Your task to perform on an android device: toggle notification dots Image 0: 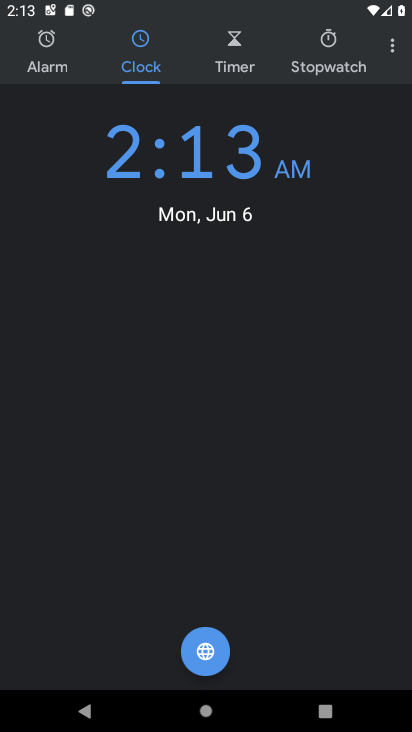
Step 0: press home button
Your task to perform on an android device: toggle notification dots Image 1: 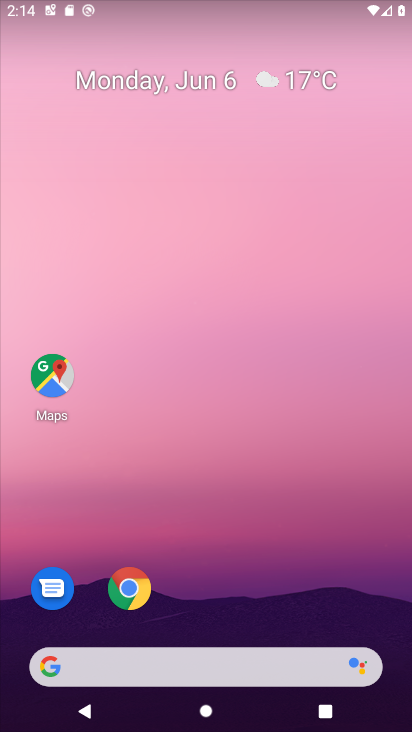
Step 1: drag from (228, 551) to (241, 108)
Your task to perform on an android device: toggle notification dots Image 2: 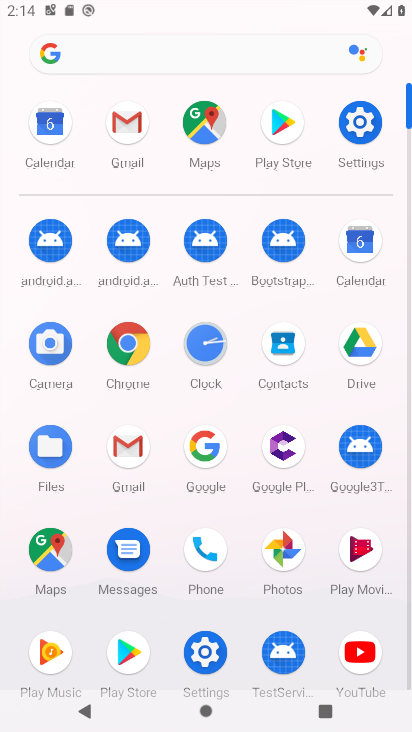
Step 2: click (365, 132)
Your task to perform on an android device: toggle notification dots Image 3: 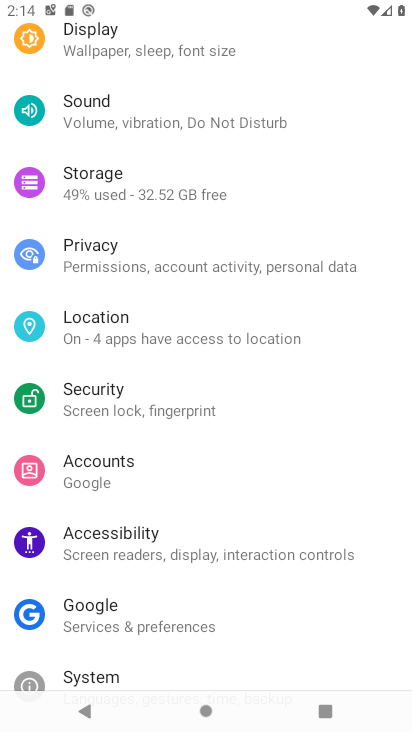
Step 3: drag from (279, 115) to (239, 637)
Your task to perform on an android device: toggle notification dots Image 4: 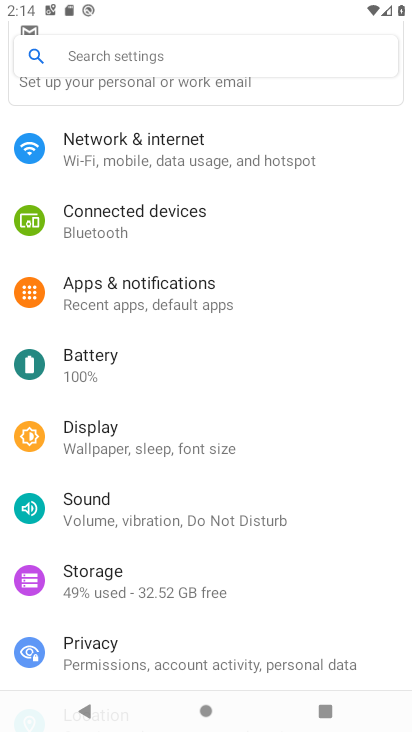
Step 4: click (243, 287)
Your task to perform on an android device: toggle notification dots Image 5: 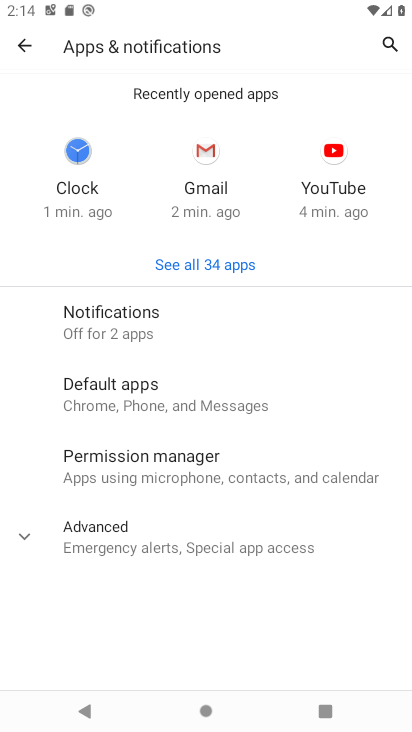
Step 5: click (236, 323)
Your task to perform on an android device: toggle notification dots Image 6: 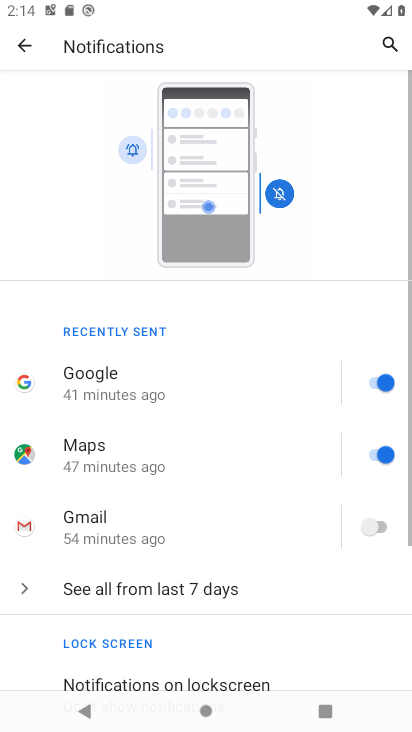
Step 6: drag from (260, 637) to (342, 130)
Your task to perform on an android device: toggle notification dots Image 7: 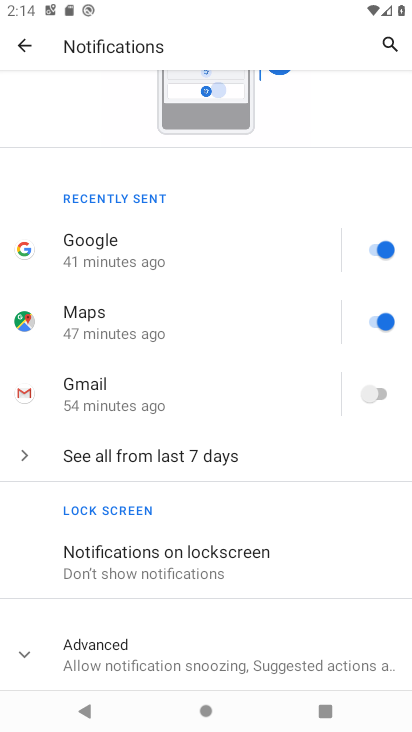
Step 7: click (238, 667)
Your task to perform on an android device: toggle notification dots Image 8: 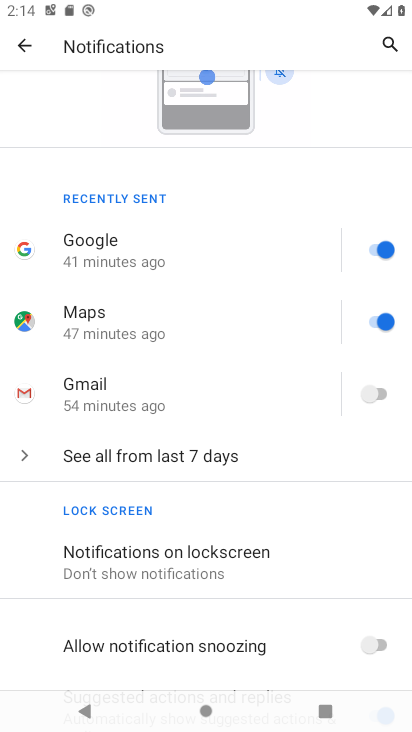
Step 8: drag from (290, 585) to (391, 13)
Your task to perform on an android device: toggle notification dots Image 9: 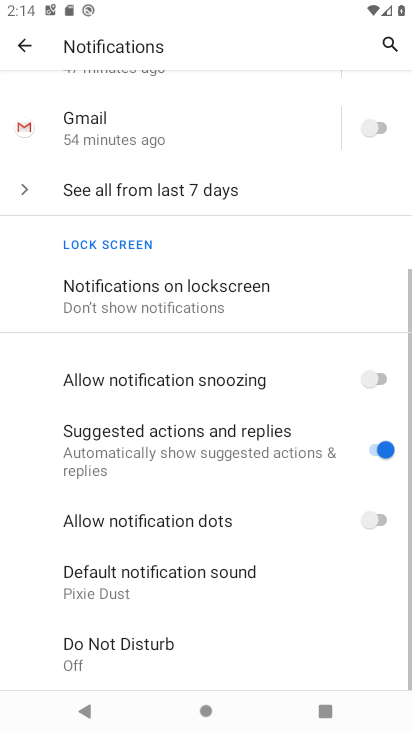
Step 9: click (372, 534)
Your task to perform on an android device: toggle notification dots Image 10: 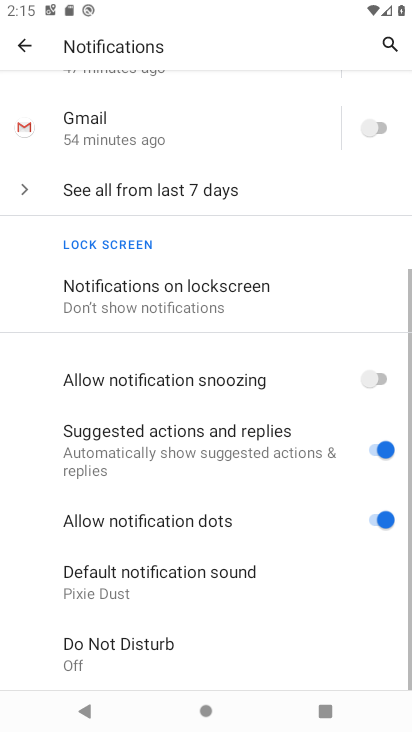
Step 10: task complete